Your task to perform on an android device: Find coffee shops on Maps Image 0: 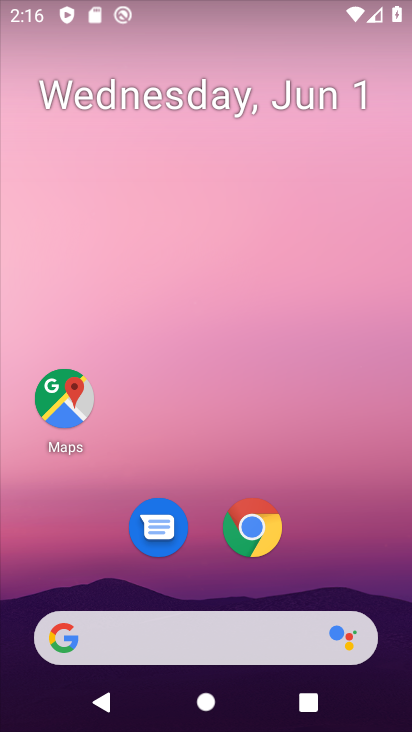
Step 0: click (66, 400)
Your task to perform on an android device: Find coffee shops on Maps Image 1: 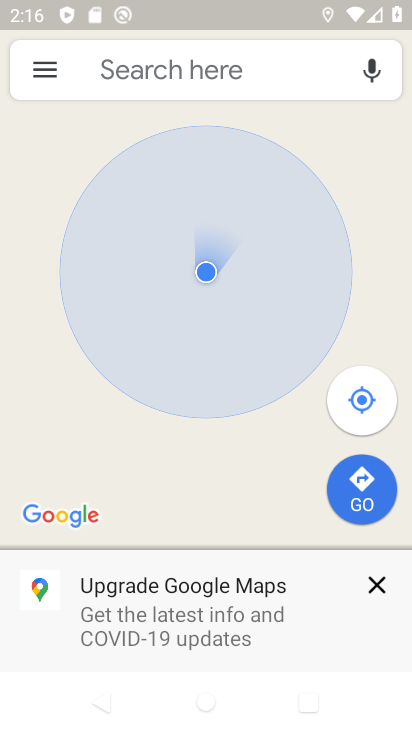
Step 1: click (176, 63)
Your task to perform on an android device: Find coffee shops on Maps Image 2: 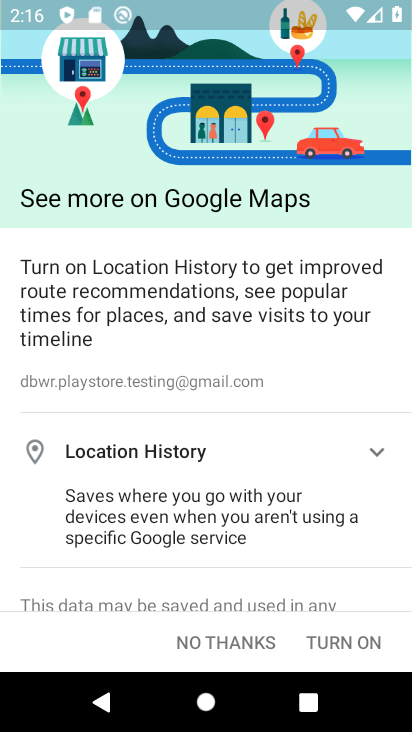
Step 2: click (232, 637)
Your task to perform on an android device: Find coffee shops on Maps Image 3: 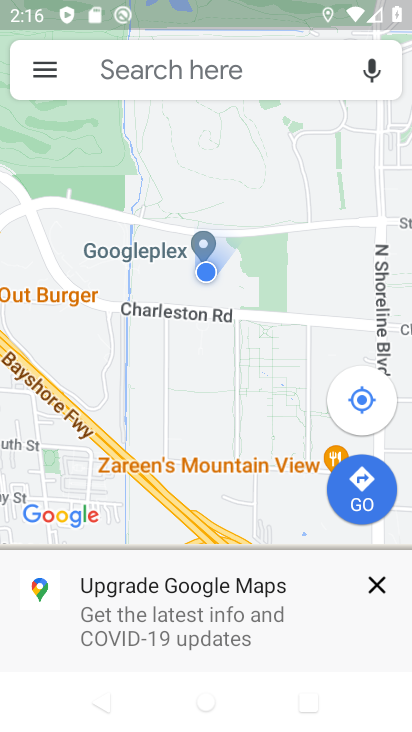
Step 3: click (254, 73)
Your task to perform on an android device: Find coffee shops on Maps Image 4: 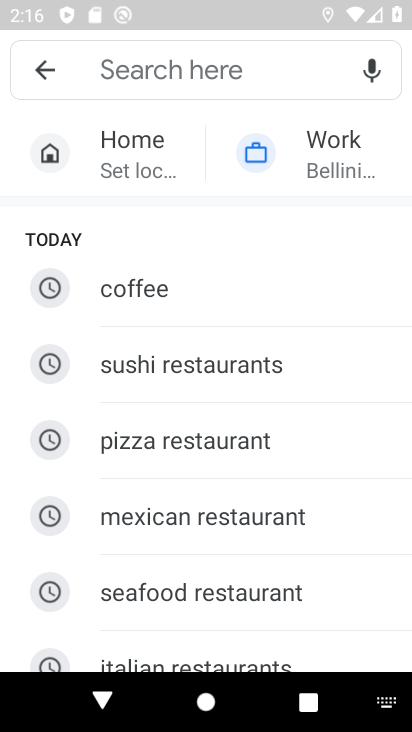
Step 4: type "coffee shops"
Your task to perform on an android device: Find coffee shops on Maps Image 5: 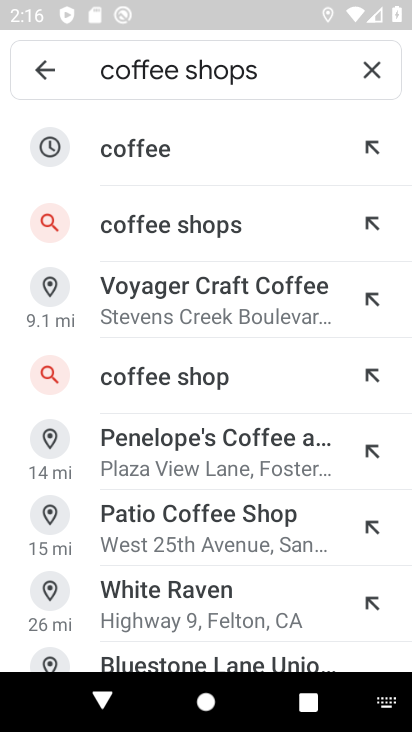
Step 5: click (235, 228)
Your task to perform on an android device: Find coffee shops on Maps Image 6: 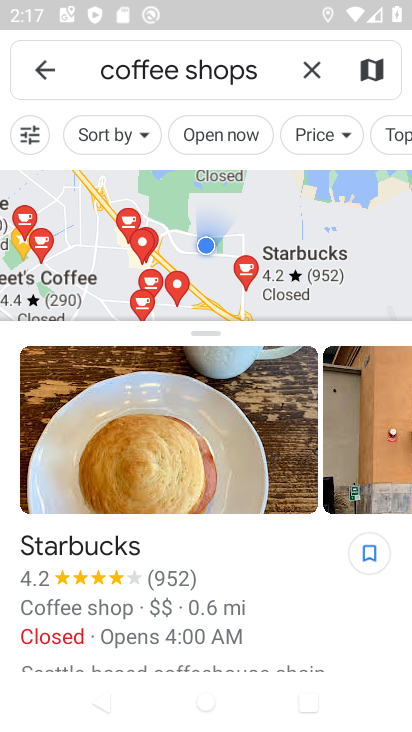
Step 6: task complete